Your task to perform on an android device: Open the calendar app, open the side menu, and click the "Day" option Image 0: 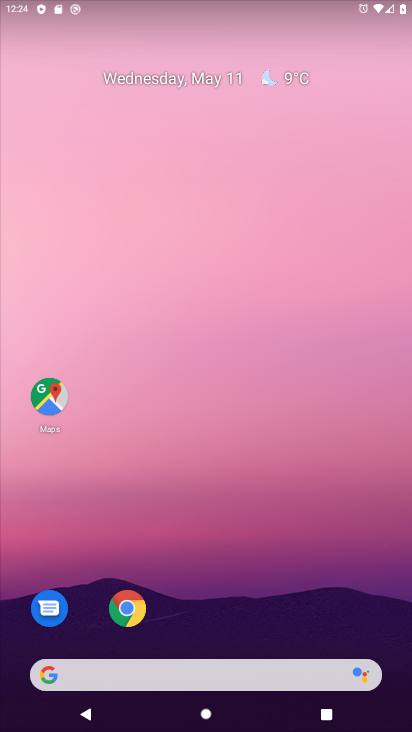
Step 0: drag from (212, 642) to (136, 239)
Your task to perform on an android device: Open the calendar app, open the side menu, and click the "Day" option Image 1: 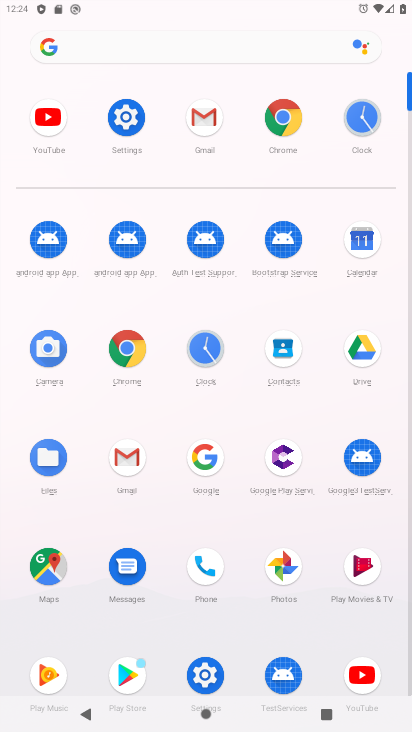
Step 1: click (368, 249)
Your task to perform on an android device: Open the calendar app, open the side menu, and click the "Day" option Image 2: 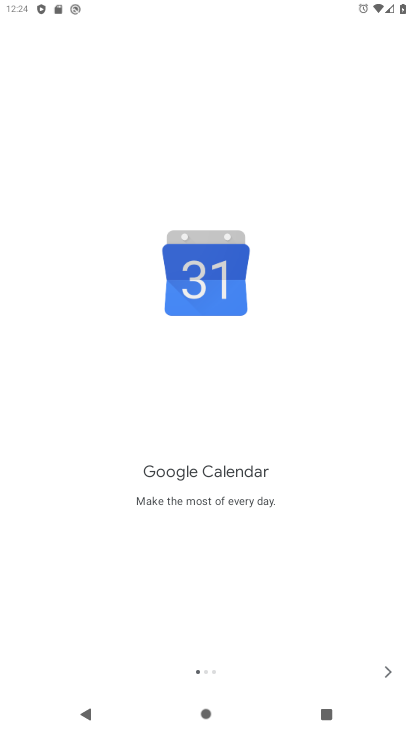
Step 2: click (384, 672)
Your task to perform on an android device: Open the calendar app, open the side menu, and click the "Day" option Image 3: 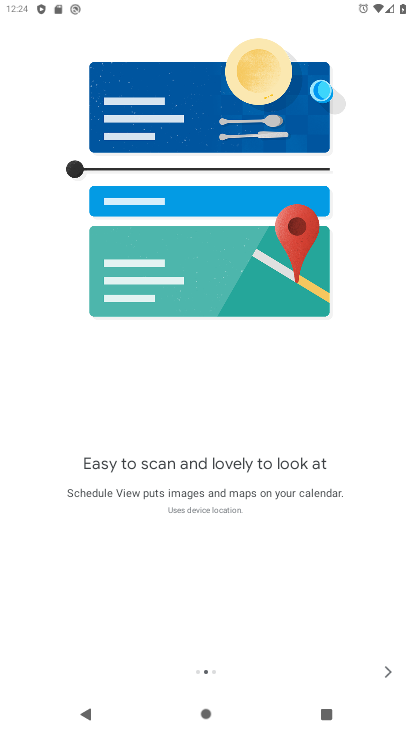
Step 3: click (384, 672)
Your task to perform on an android device: Open the calendar app, open the side menu, and click the "Day" option Image 4: 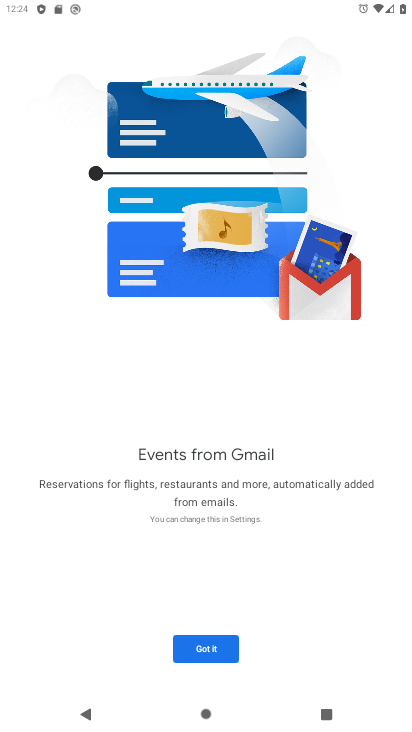
Step 4: click (210, 658)
Your task to perform on an android device: Open the calendar app, open the side menu, and click the "Day" option Image 5: 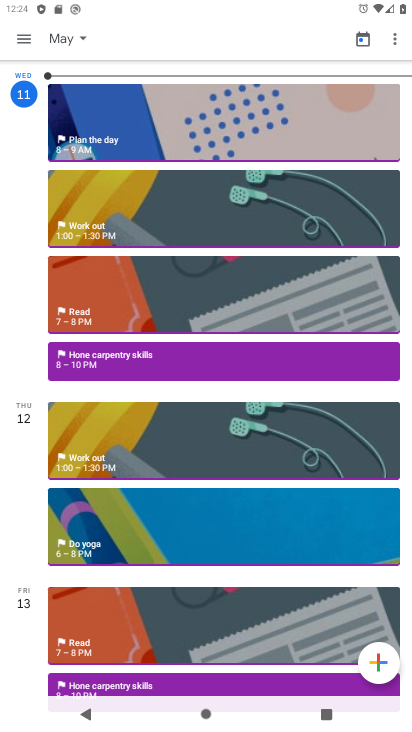
Step 5: click (23, 36)
Your task to perform on an android device: Open the calendar app, open the side menu, and click the "Day" option Image 6: 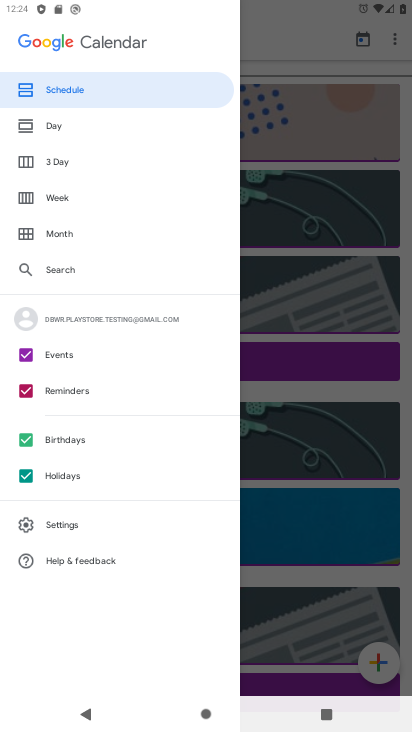
Step 6: click (81, 127)
Your task to perform on an android device: Open the calendar app, open the side menu, and click the "Day" option Image 7: 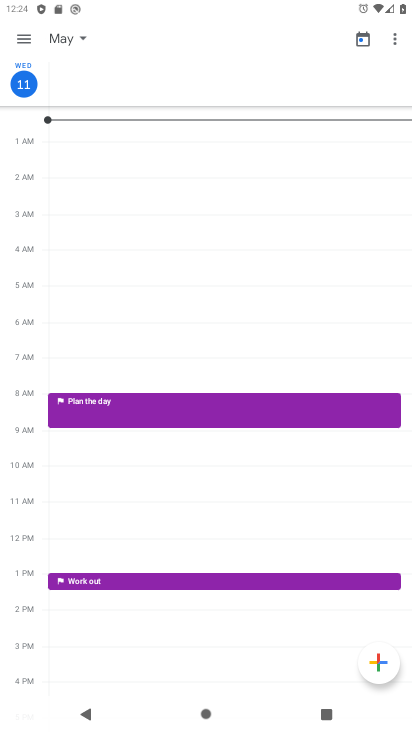
Step 7: click (81, 127)
Your task to perform on an android device: Open the calendar app, open the side menu, and click the "Day" option Image 8: 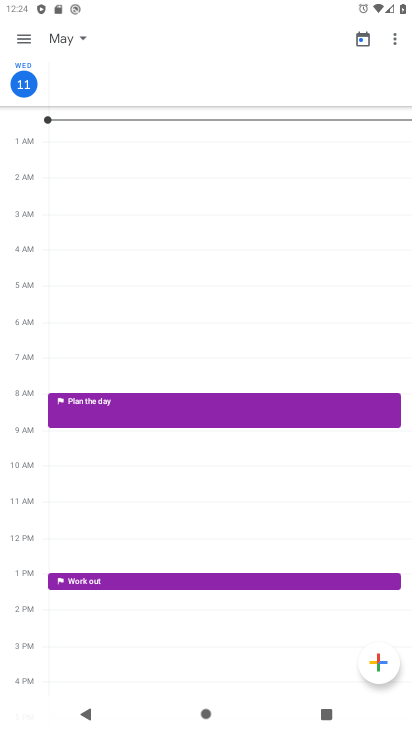
Step 8: task complete